Your task to perform on an android device: delete the emails in spam in the gmail app Image 0: 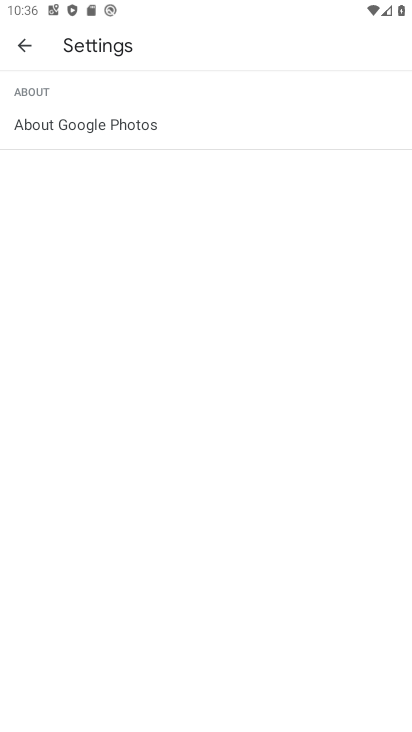
Step 0: press home button
Your task to perform on an android device: delete the emails in spam in the gmail app Image 1: 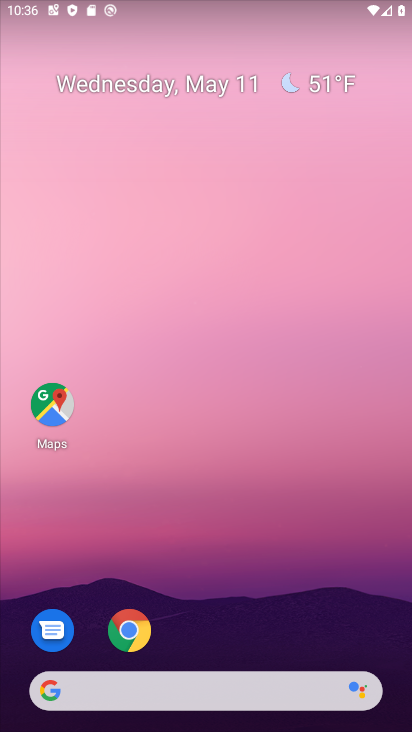
Step 1: drag from (203, 728) to (211, 200)
Your task to perform on an android device: delete the emails in spam in the gmail app Image 2: 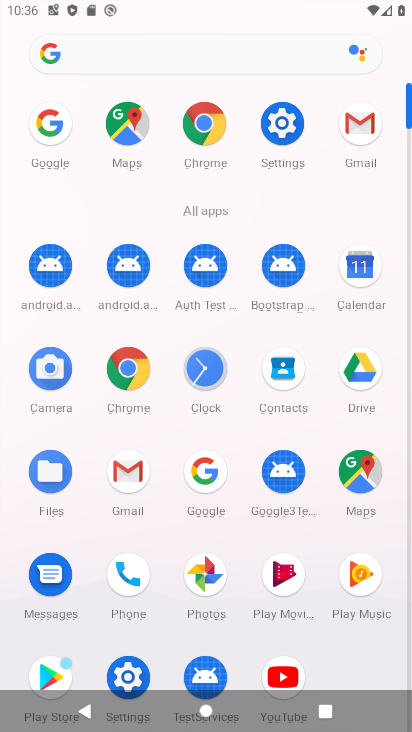
Step 2: click (117, 473)
Your task to perform on an android device: delete the emails in spam in the gmail app Image 3: 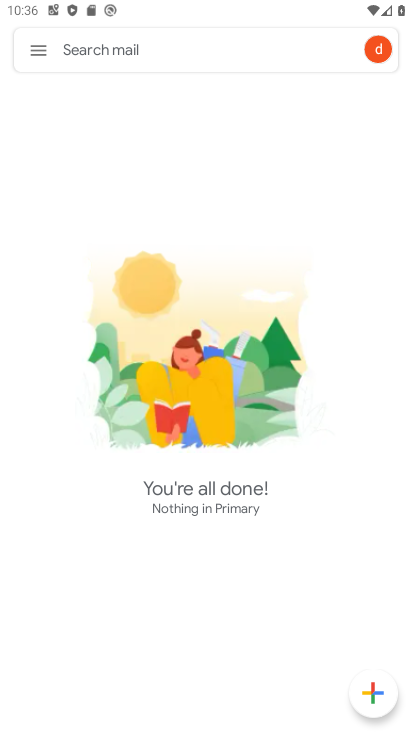
Step 3: click (35, 45)
Your task to perform on an android device: delete the emails in spam in the gmail app Image 4: 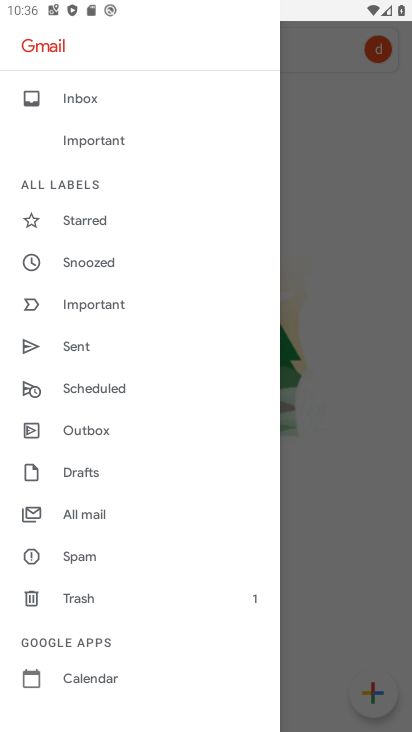
Step 4: click (72, 555)
Your task to perform on an android device: delete the emails in spam in the gmail app Image 5: 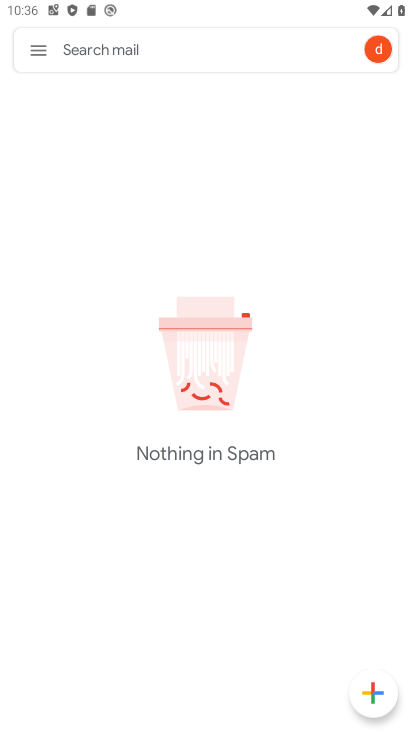
Step 5: task complete